Your task to perform on an android device: set default search engine in the chrome app Image 0: 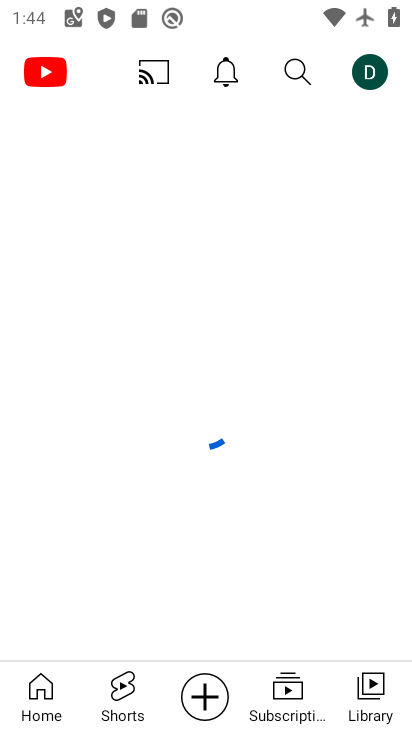
Step 0: press home button
Your task to perform on an android device: set default search engine in the chrome app Image 1: 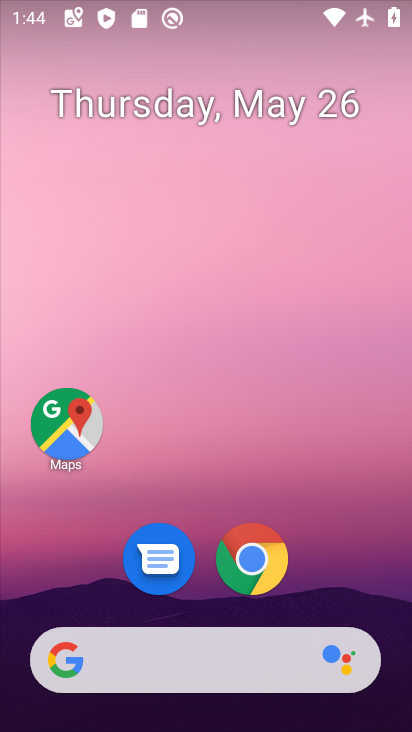
Step 1: click (239, 573)
Your task to perform on an android device: set default search engine in the chrome app Image 2: 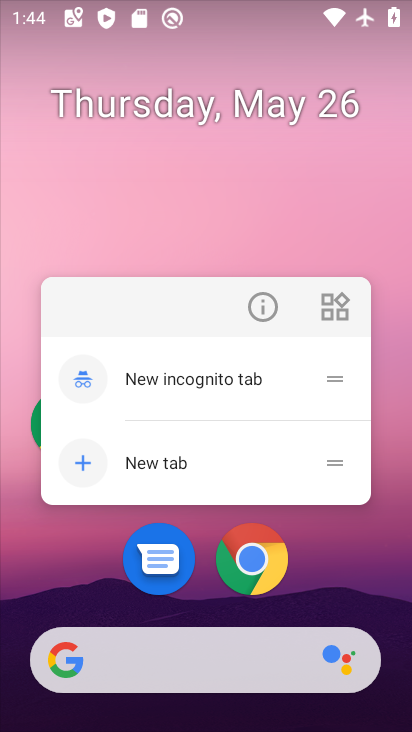
Step 2: click (257, 564)
Your task to perform on an android device: set default search engine in the chrome app Image 3: 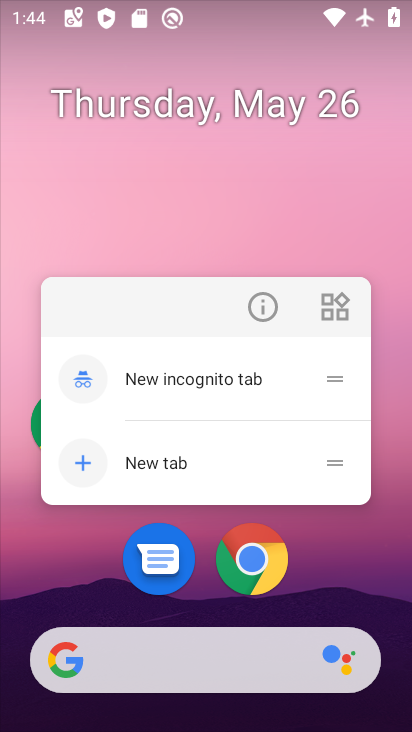
Step 3: click (241, 561)
Your task to perform on an android device: set default search engine in the chrome app Image 4: 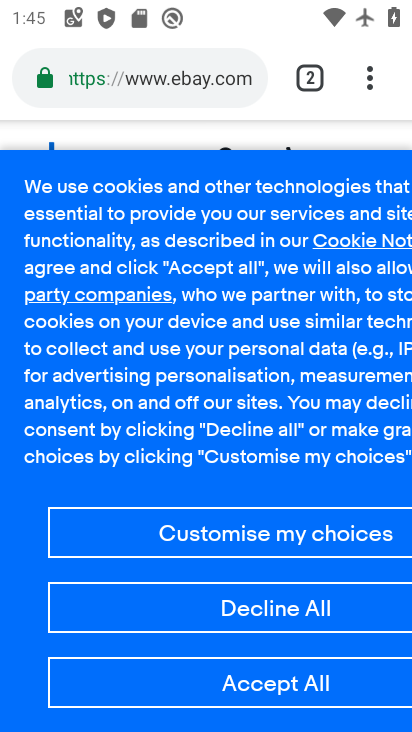
Step 4: drag from (371, 88) to (219, 600)
Your task to perform on an android device: set default search engine in the chrome app Image 5: 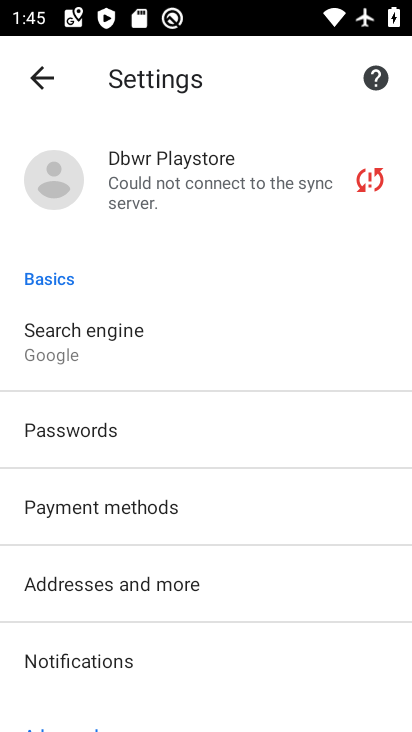
Step 5: click (100, 340)
Your task to perform on an android device: set default search engine in the chrome app Image 6: 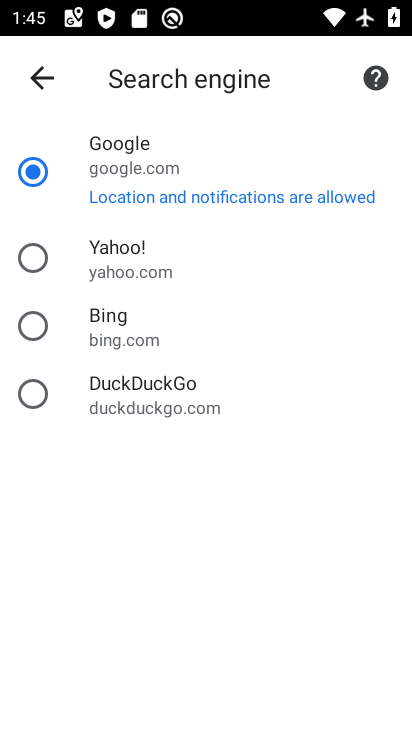
Step 6: click (35, 256)
Your task to perform on an android device: set default search engine in the chrome app Image 7: 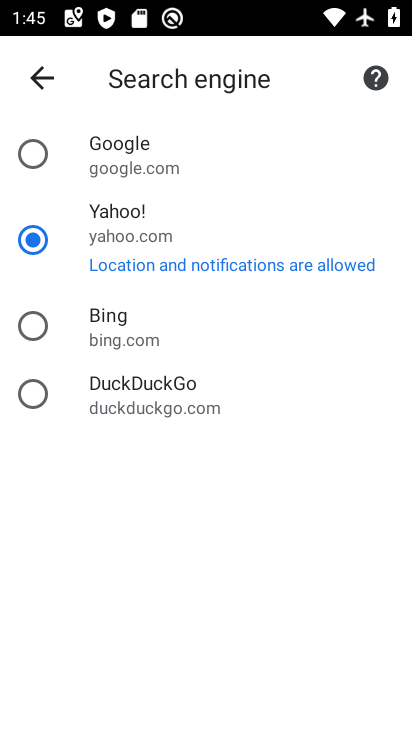
Step 7: task complete